Your task to perform on an android device: Open Yahoo.com Image 0: 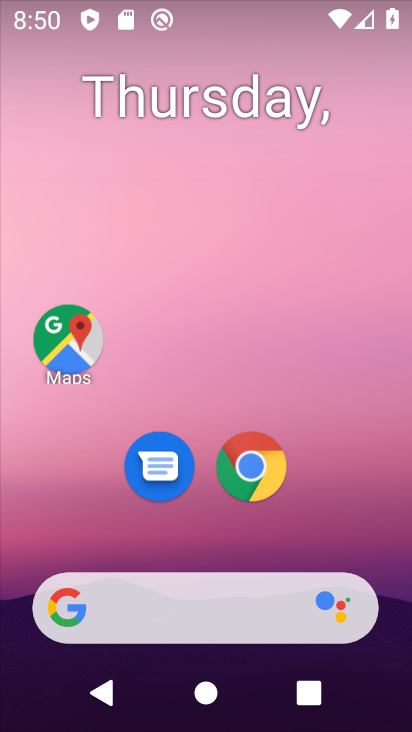
Step 0: press home button
Your task to perform on an android device: Open Yahoo.com Image 1: 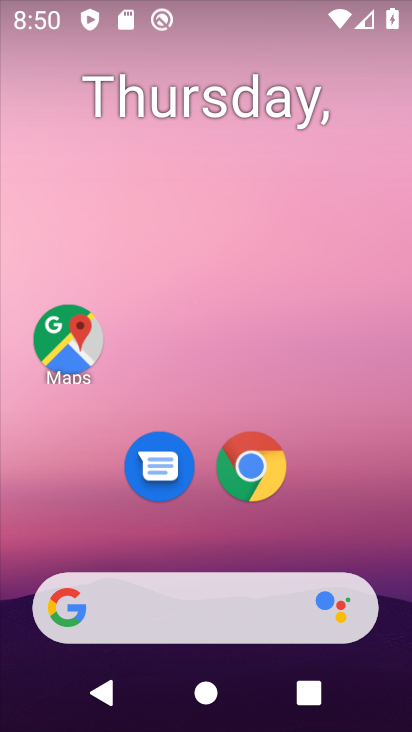
Step 1: click (262, 471)
Your task to perform on an android device: Open Yahoo.com Image 2: 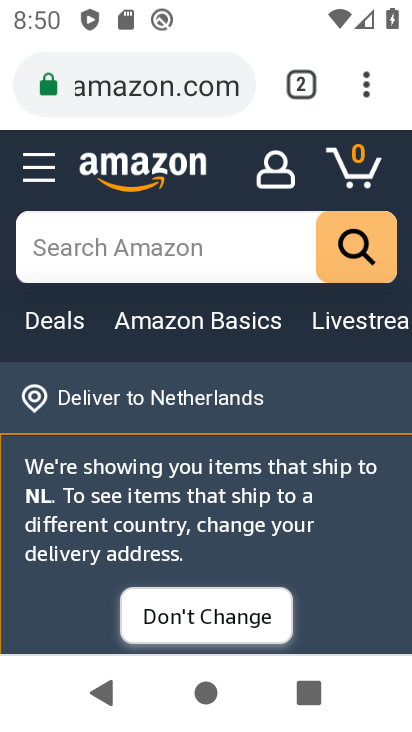
Step 2: drag from (367, 85) to (267, 170)
Your task to perform on an android device: Open Yahoo.com Image 3: 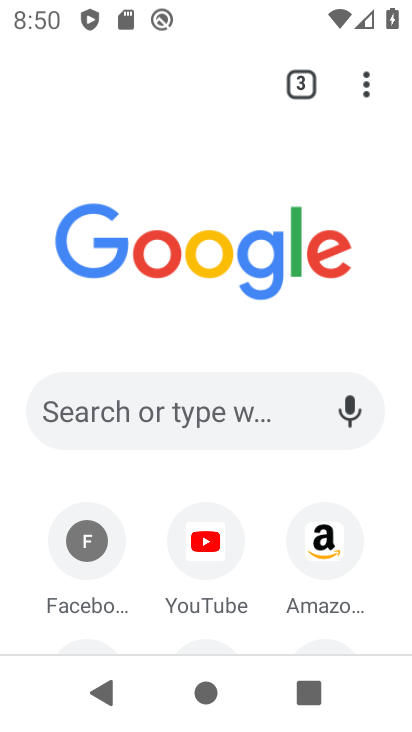
Step 3: drag from (258, 489) to (336, 193)
Your task to perform on an android device: Open Yahoo.com Image 4: 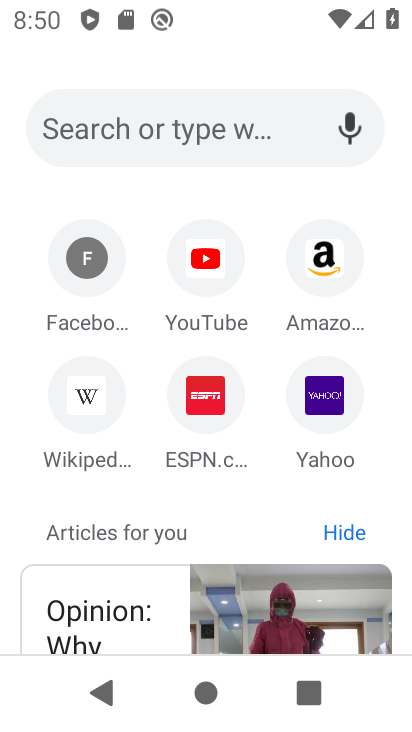
Step 4: click (322, 398)
Your task to perform on an android device: Open Yahoo.com Image 5: 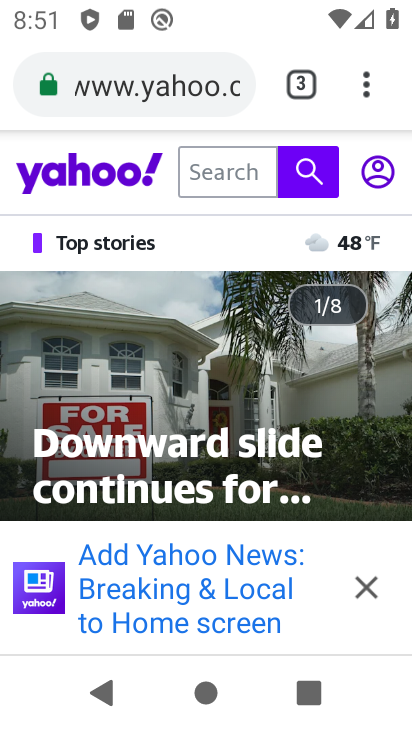
Step 5: task complete